Your task to perform on an android device: change notification settings in the gmail app Image 0: 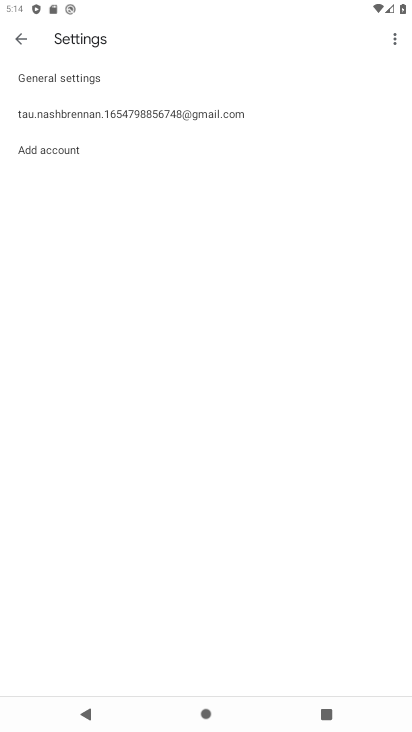
Step 0: click (214, 130)
Your task to perform on an android device: change notification settings in the gmail app Image 1: 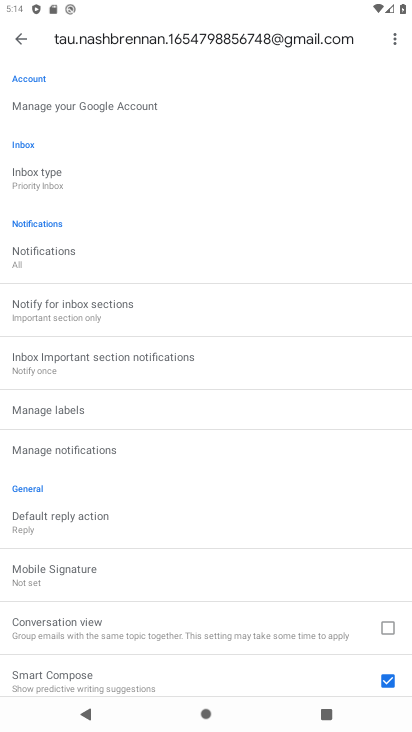
Step 1: click (49, 260)
Your task to perform on an android device: change notification settings in the gmail app Image 2: 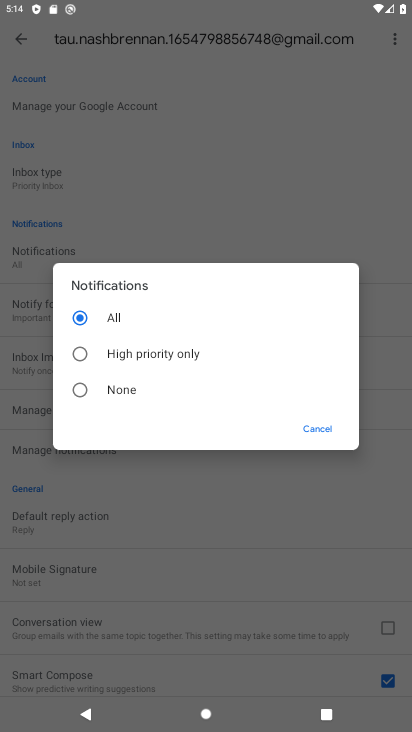
Step 2: click (163, 352)
Your task to perform on an android device: change notification settings in the gmail app Image 3: 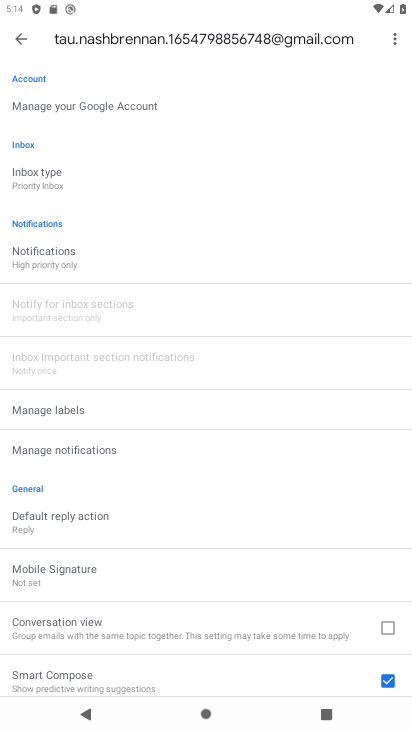
Step 3: task complete